Your task to perform on an android device: delete browsing data in the chrome app Image 0: 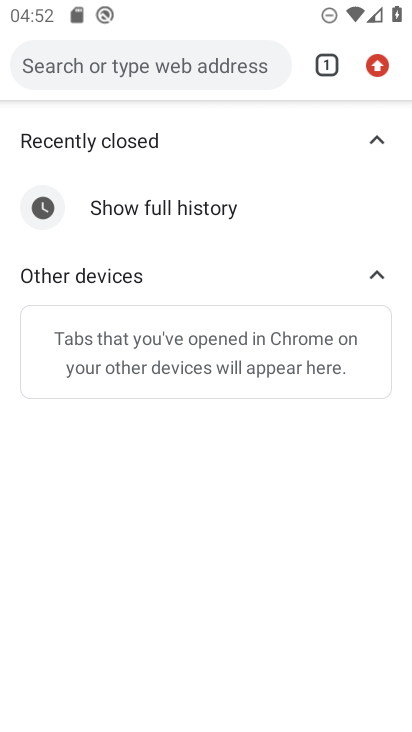
Step 0: press home button
Your task to perform on an android device: delete browsing data in the chrome app Image 1: 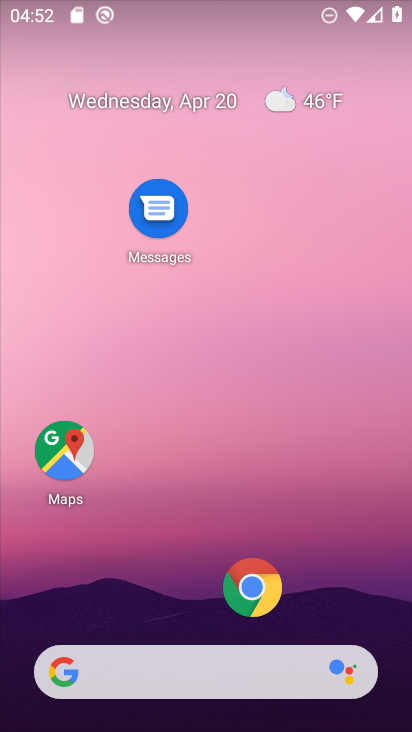
Step 1: click (246, 597)
Your task to perform on an android device: delete browsing data in the chrome app Image 2: 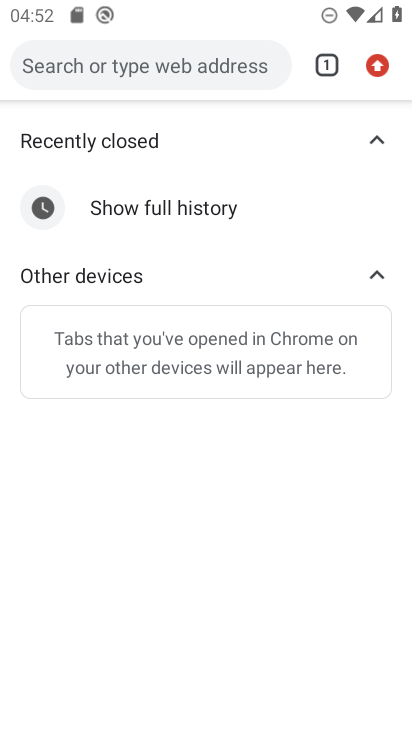
Step 2: click (377, 65)
Your task to perform on an android device: delete browsing data in the chrome app Image 3: 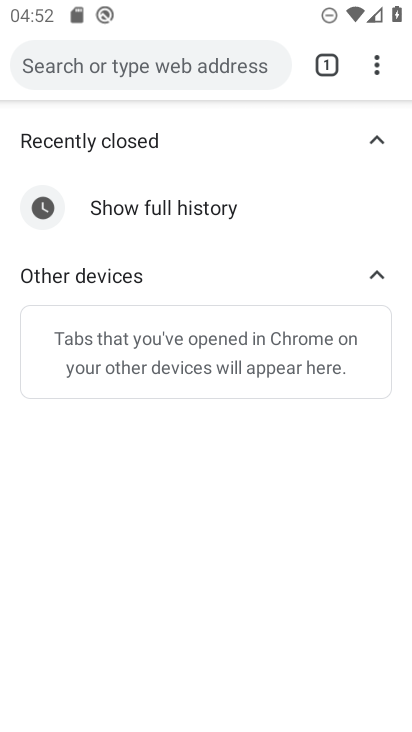
Step 3: click (377, 65)
Your task to perform on an android device: delete browsing data in the chrome app Image 4: 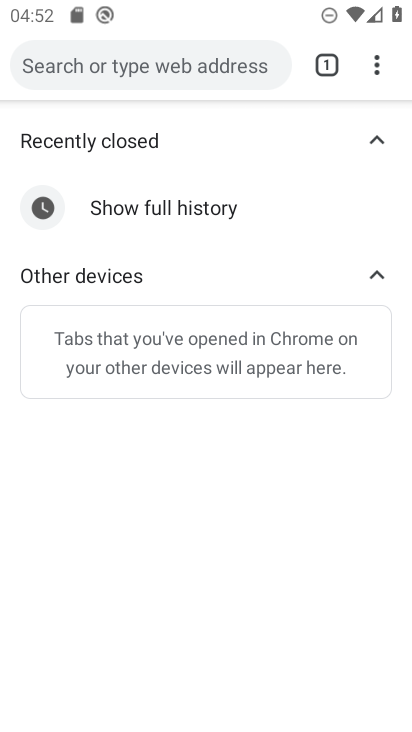
Step 4: drag from (379, 61) to (151, 437)
Your task to perform on an android device: delete browsing data in the chrome app Image 5: 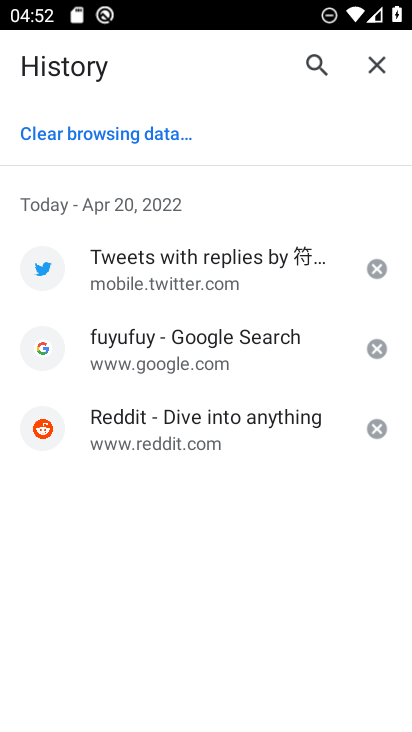
Step 5: click (83, 136)
Your task to perform on an android device: delete browsing data in the chrome app Image 6: 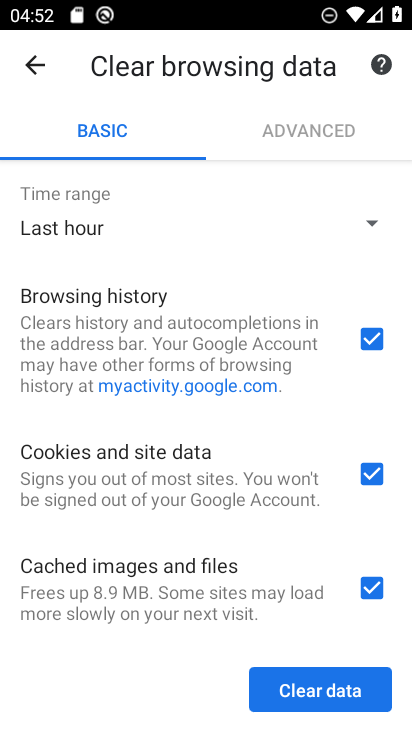
Step 6: click (329, 683)
Your task to perform on an android device: delete browsing data in the chrome app Image 7: 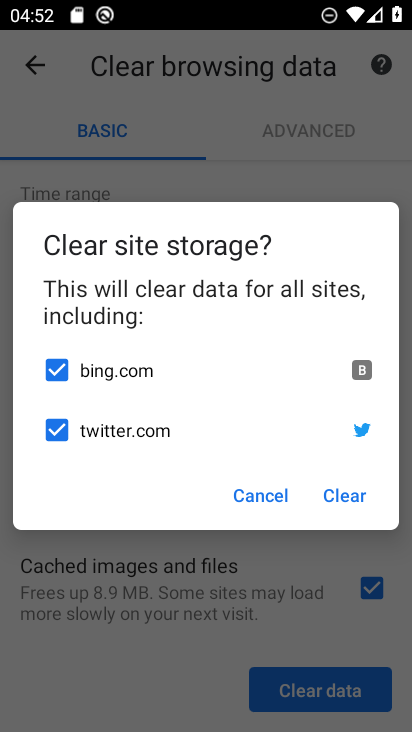
Step 7: click (339, 502)
Your task to perform on an android device: delete browsing data in the chrome app Image 8: 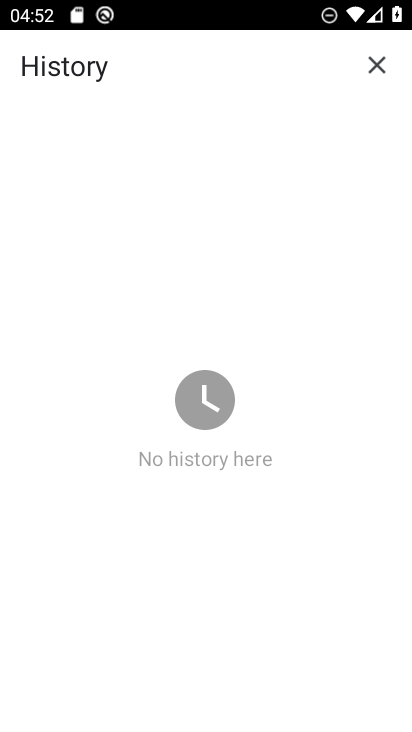
Step 8: task complete